Your task to perform on an android device: turn off notifications in google photos Image 0: 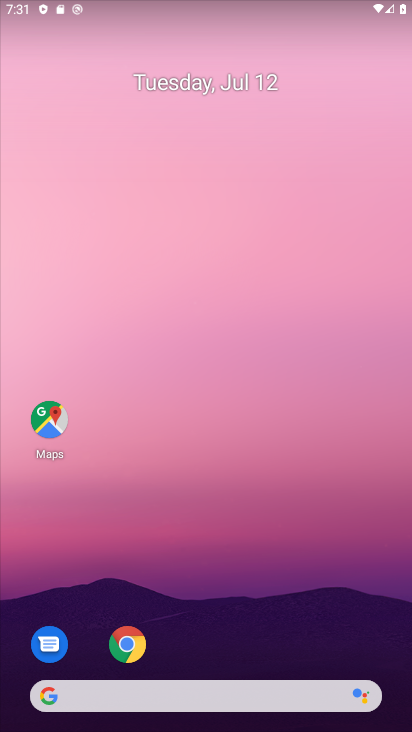
Step 0: drag from (194, 673) to (287, 408)
Your task to perform on an android device: turn off notifications in google photos Image 1: 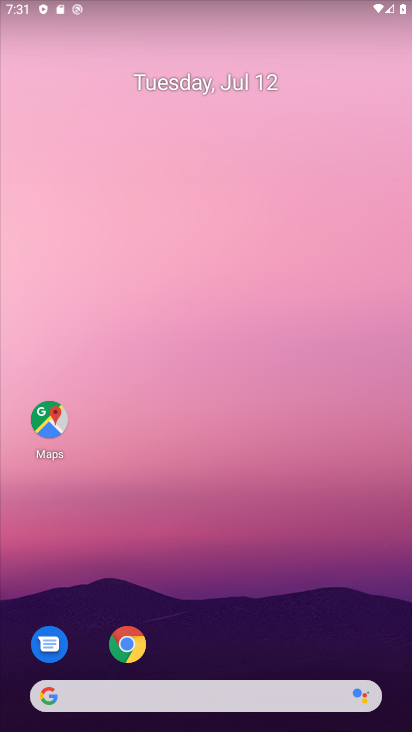
Step 1: drag from (159, 578) to (233, 354)
Your task to perform on an android device: turn off notifications in google photos Image 2: 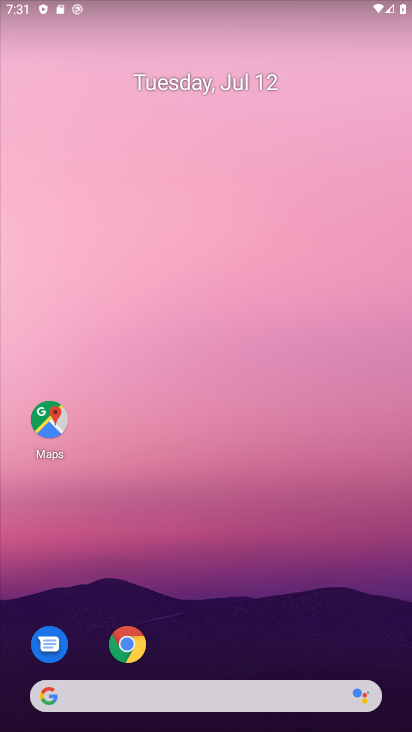
Step 2: drag from (232, 710) to (228, 299)
Your task to perform on an android device: turn off notifications in google photos Image 3: 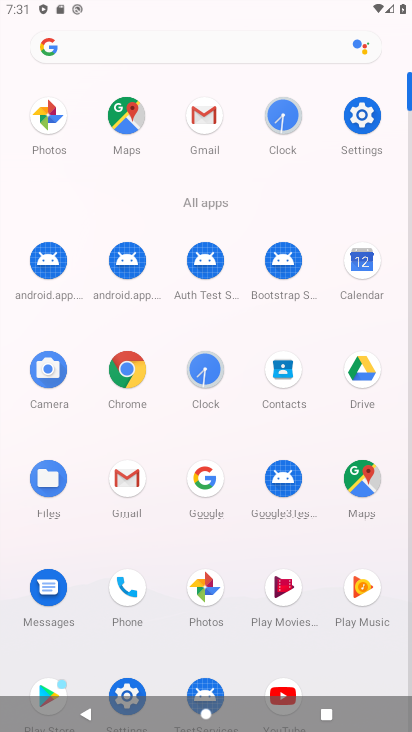
Step 3: click (207, 595)
Your task to perform on an android device: turn off notifications in google photos Image 4: 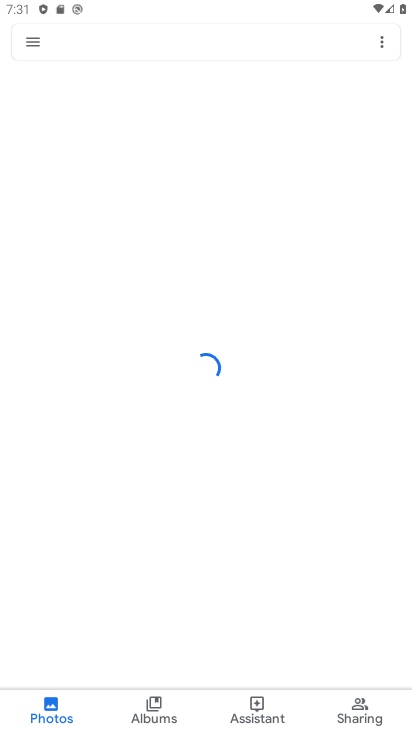
Step 4: click (33, 42)
Your task to perform on an android device: turn off notifications in google photos Image 5: 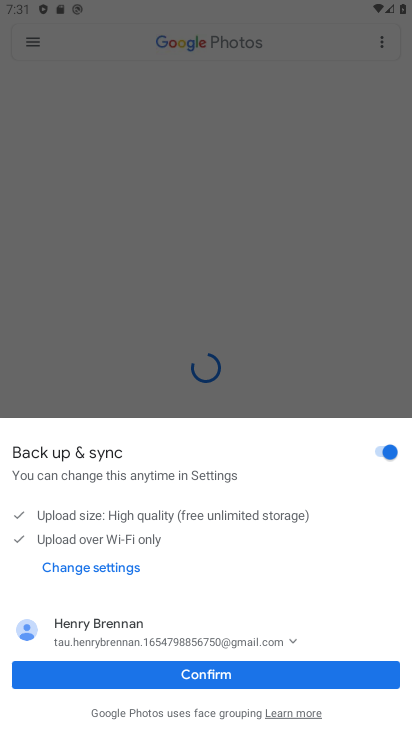
Step 5: click (207, 683)
Your task to perform on an android device: turn off notifications in google photos Image 6: 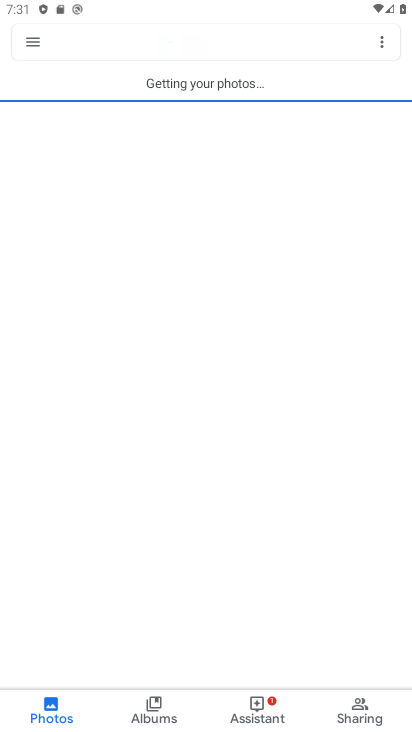
Step 6: click (38, 40)
Your task to perform on an android device: turn off notifications in google photos Image 7: 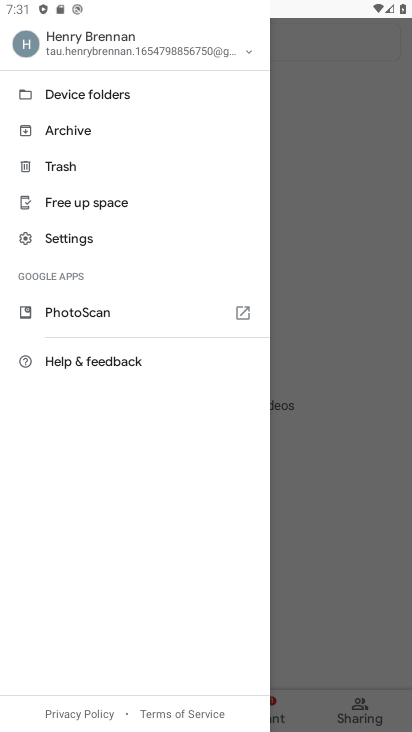
Step 7: click (78, 235)
Your task to perform on an android device: turn off notifications in google photos Image 8: 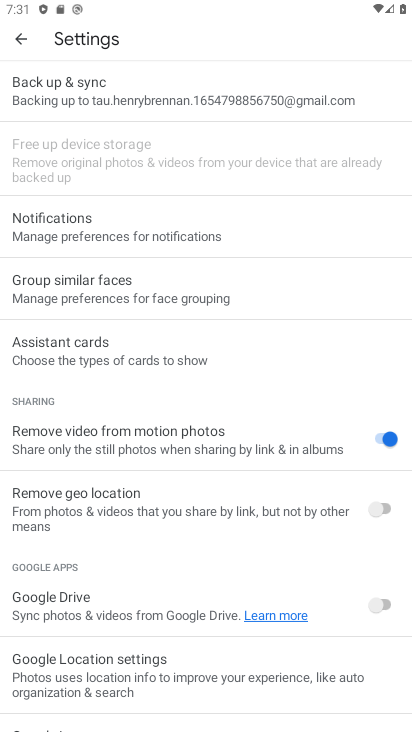
Step 8: click (70, 213)
Your task to perform on an android device: turn off notifications in google photos Image 9: 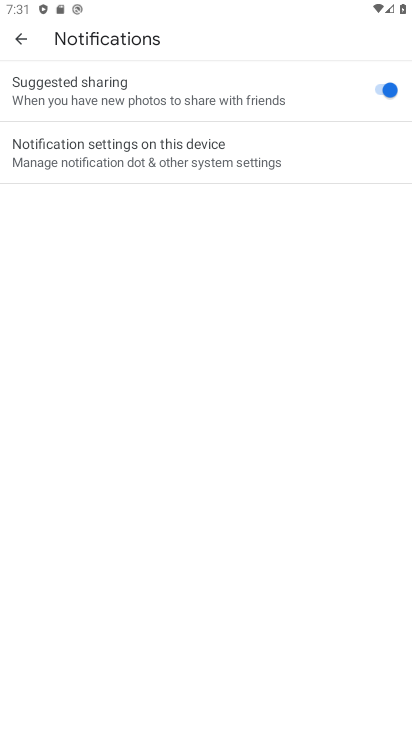
Step 9: click (102, 151)
Your task to perform on an android device: turn off notifications in google photos Image 10: 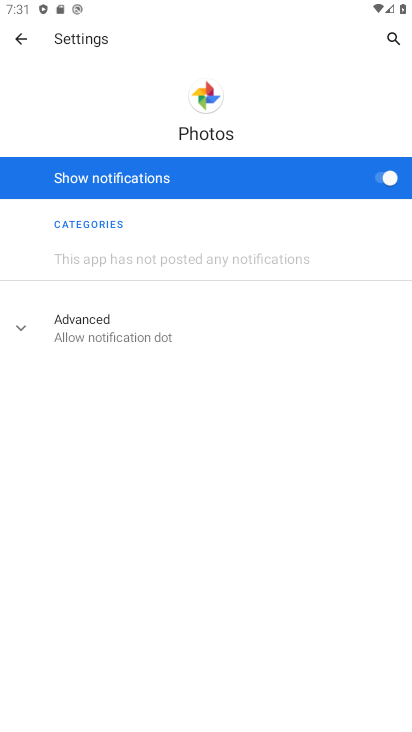
Step 10: click (376, 177)
Your task to perform on an android device: turn off notifications in google photos Image 11: 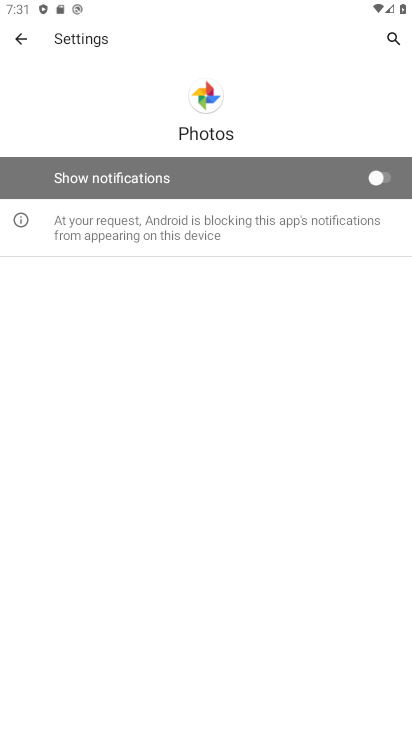
Step 11: task complete